Your task to perform on an android device: empty trash in the gmail app Image 0: 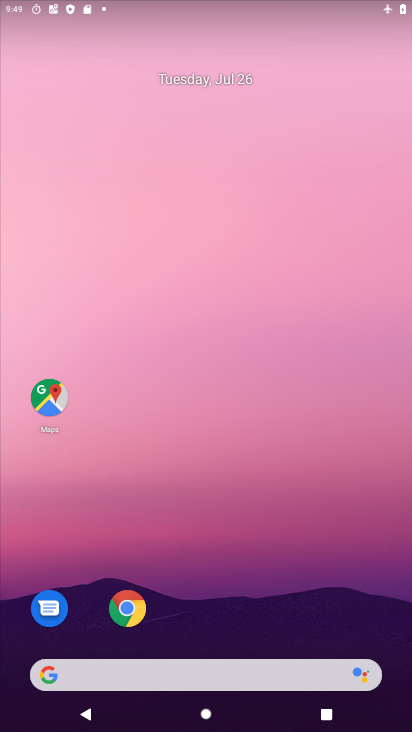
Step 0: drag from (215, 622) to (218, 164)
Your task to perform on an android device: empty trash in the gmail app Image 1: 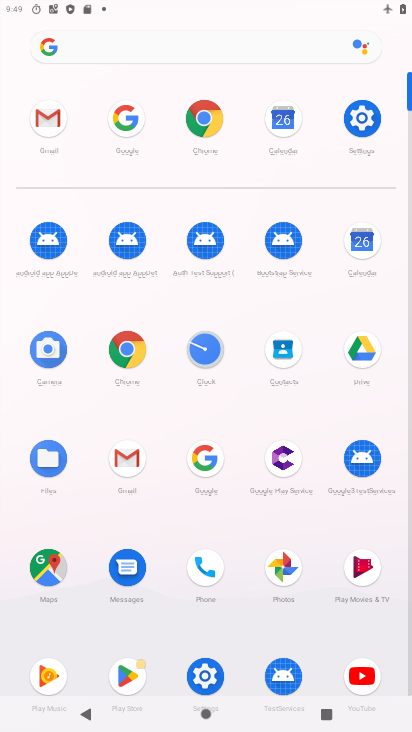
Step 1: click (63, 139)
Your task to perform on an android device: empty trash in the gmail app Image 2: 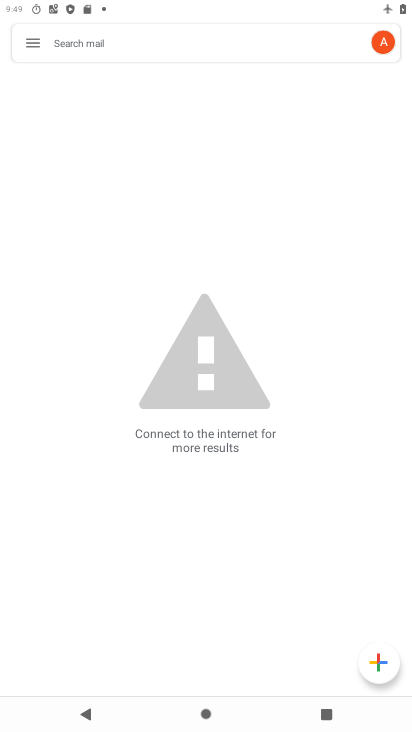
Step 2: click (34, 46)
Your task to perform on an android device: empty trash in the gmail app Image 3: 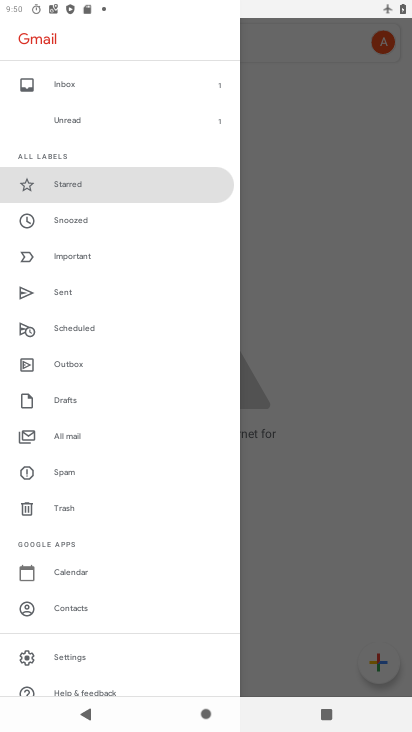
Step 3: click (81, 502)
Your task to perform on an android device: empty trash in the gmail app Image 4: 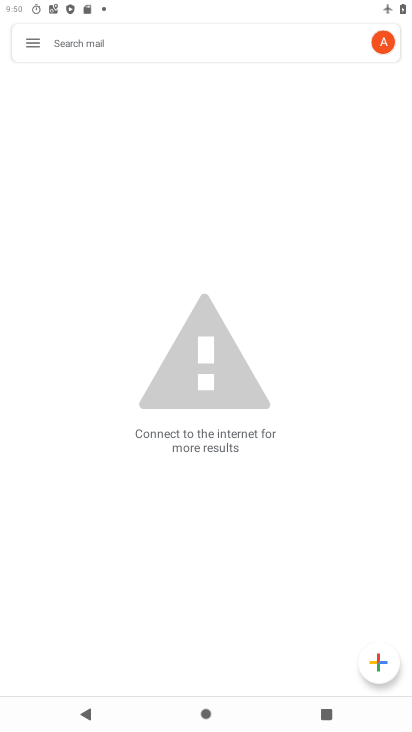
Step 4: task complete